Your task to perform on an android device: Go to display settings Image 0: 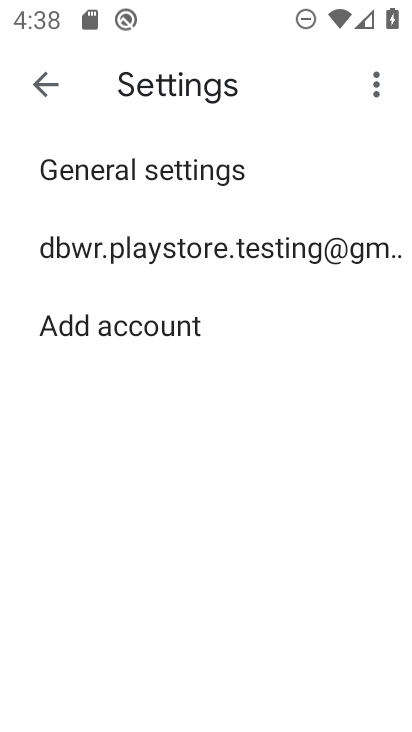
Step 0: press home button
Your task to perform on an android device: Go to display settings Image 1: 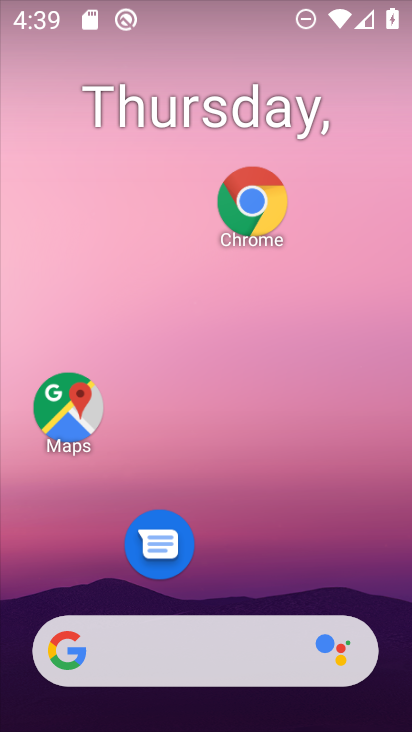
Step 1: drag from (272, 564) to (313, 129)
Your task to perform on an android device: Go to display settings Image 2: 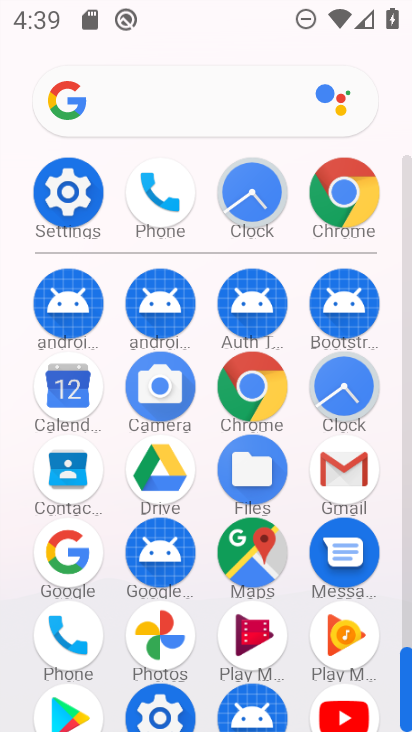
Step 2: click (162, 705)
Your task to perform on an android device: Go to display settings Image 3: 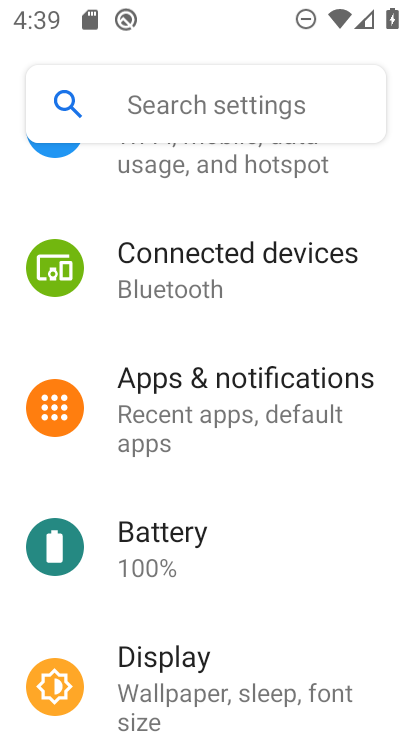
Step 3: click (146, 655)
Your task to perform on an android device: Go to display settings Image 4: 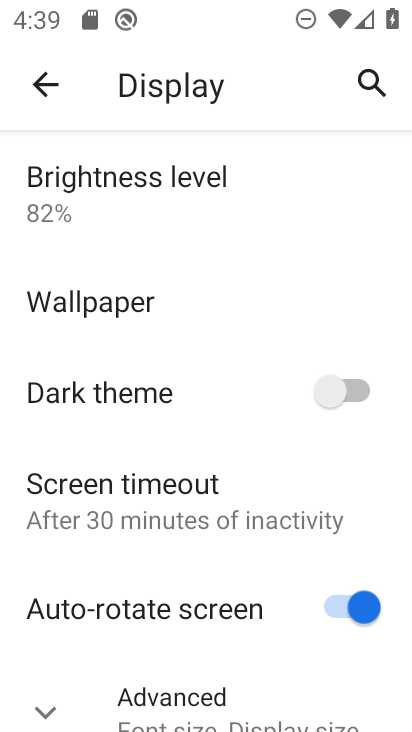
Step 4: task complete